Your task to perform on an android device: choose inbox layout in the gmail app Image 0: 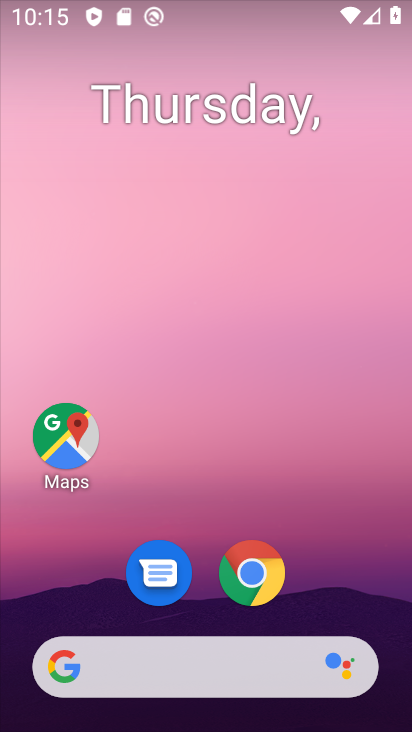
Step 0: drag from (285, 540) to (106, 37)
Your task to perform on an android device: choose inbox layout in the gmail app Image 1: 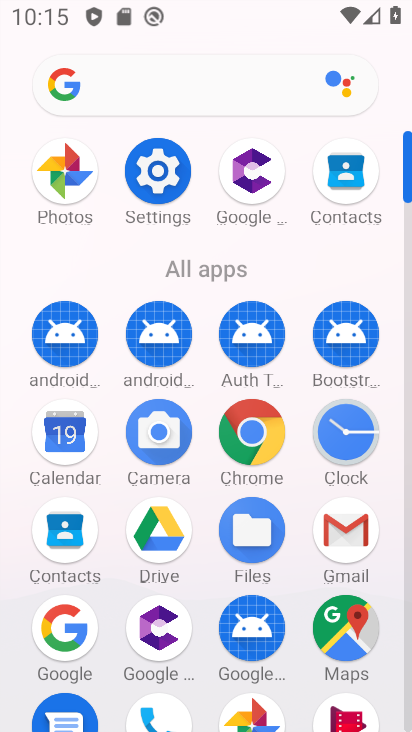
Step 1: click (358, 514)
Your task to perform on an android device: choose inbox layout in the gmail app Image 2: 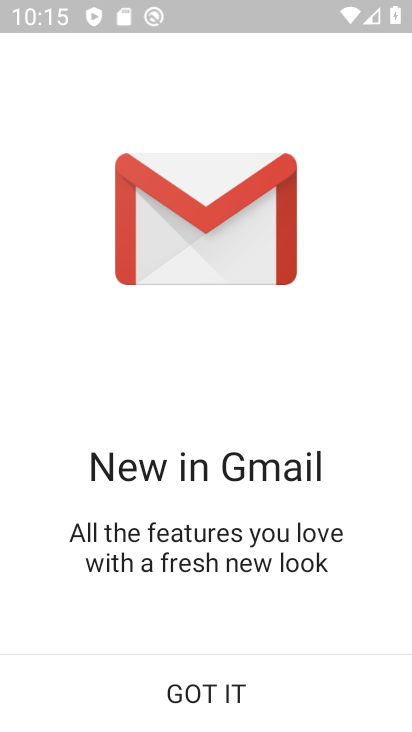
Step 2: click (242, 701)
Your task to perform on an android device: choose inbox layout in the gmail app Image 3: 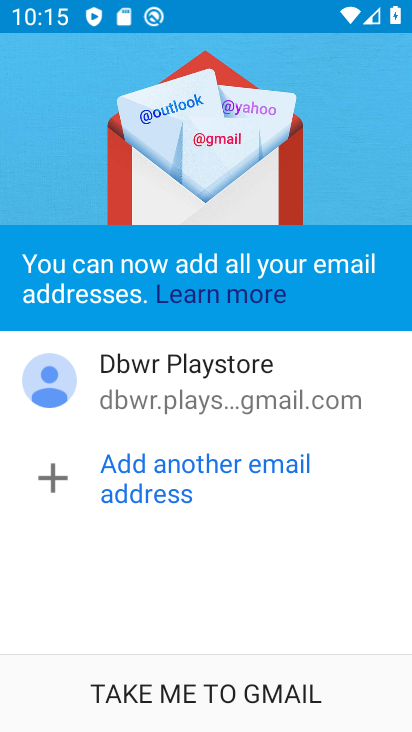
Step 3: click (242, 699)
Your task to perform on an android device: choose inbox layout in the gmail app Image 4: 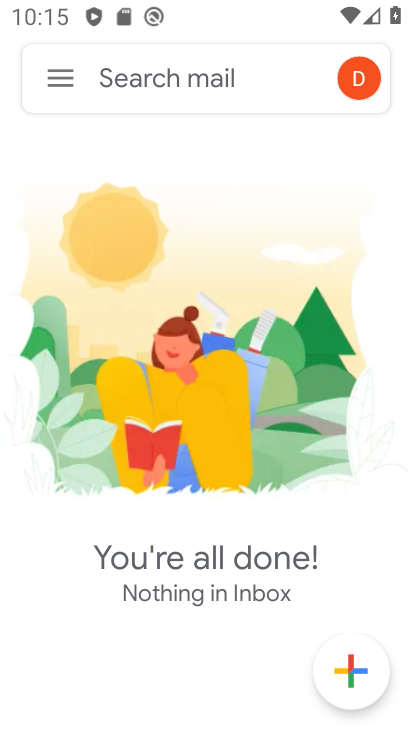
Step 4: click (61, 69)
Your task to perform on an android device: choose inbox layout in the gmail app Image 5: 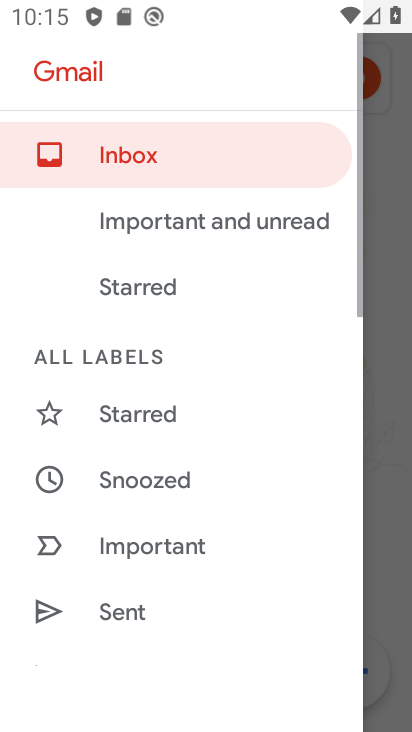
Step 5: drag from (189, 563) to (127, 139)
Your task to perform on an android device: choose inbox layout in the gmail app Image 6: 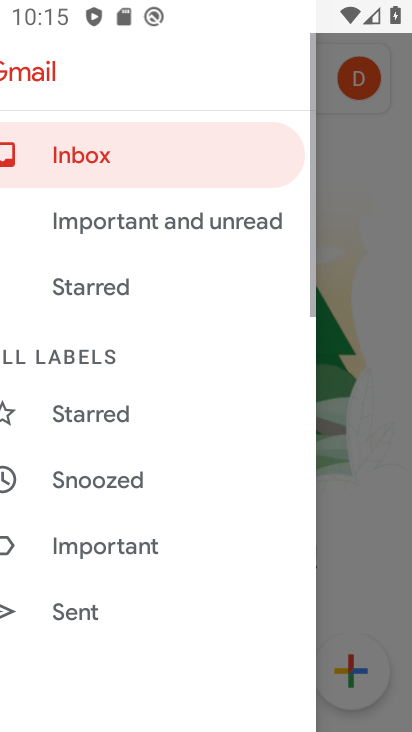
Step 6: drag from (126, 148) to (261, 323)
Your task to perform on an android device: choose inbox layout in the gmail app Image 7: 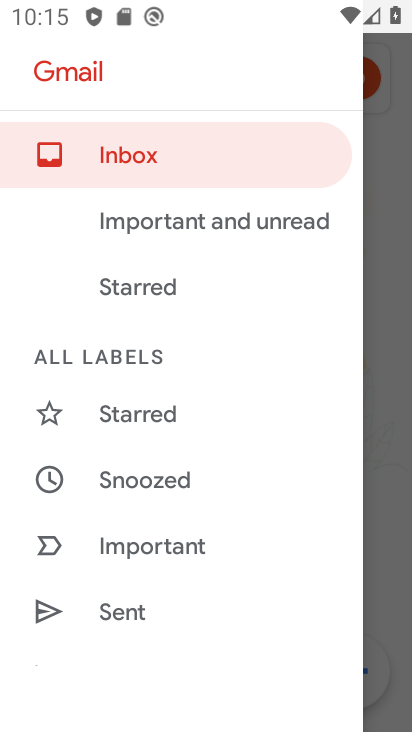
Step 7: drag from (84, 600) to (105, 246)
Your task to perform on an android device: choose inbox layout in the gmail app Image 8: 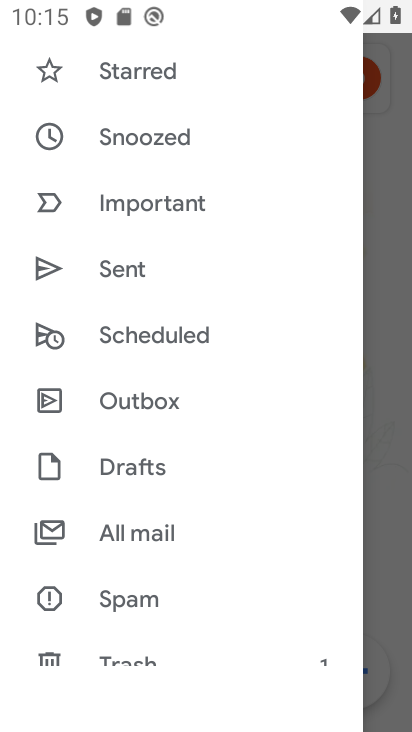
Step 8: drag from (82, 599) to (141, 130)
Your task to perform on an android device: choose inbox layout in the gmail app Image 9: 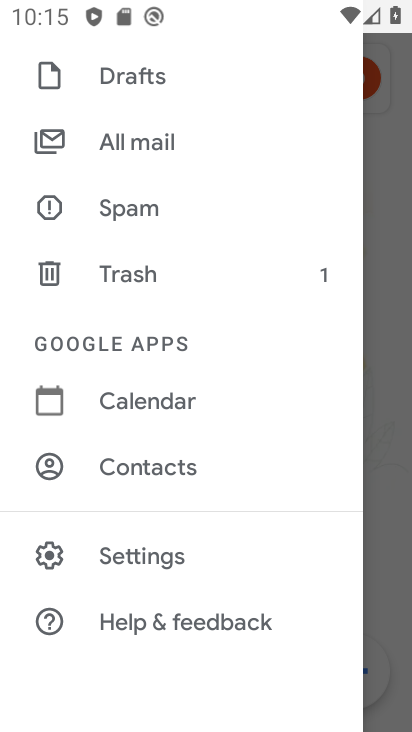
Step 9: click (124, 555)
Your task to perform on an android device: choose inbox layout in the gmail app Image 10: 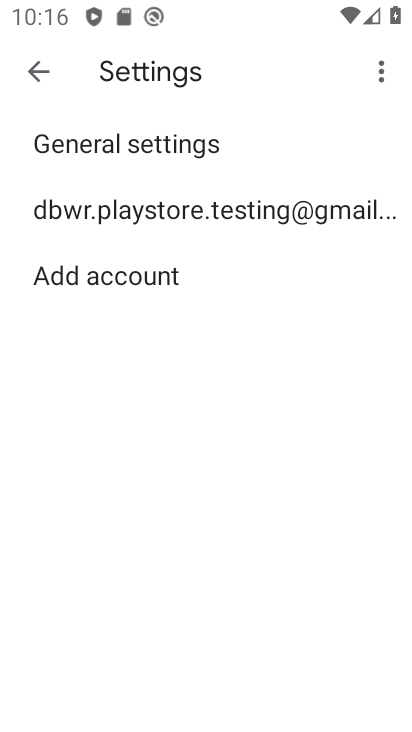
Step 10: click (210, 208)
Your task to perform on an android device: choose inbox layout in the gmail app Image 11: 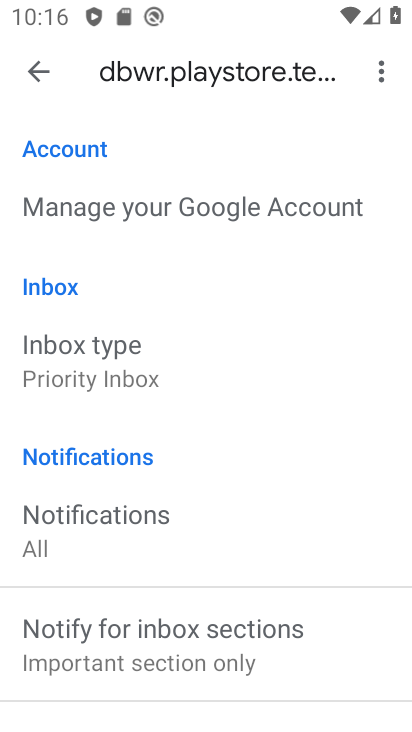
Step 11: click (67, 377)
Your task to perform on an android device: choose inbox layout in the gmail app Image 12: 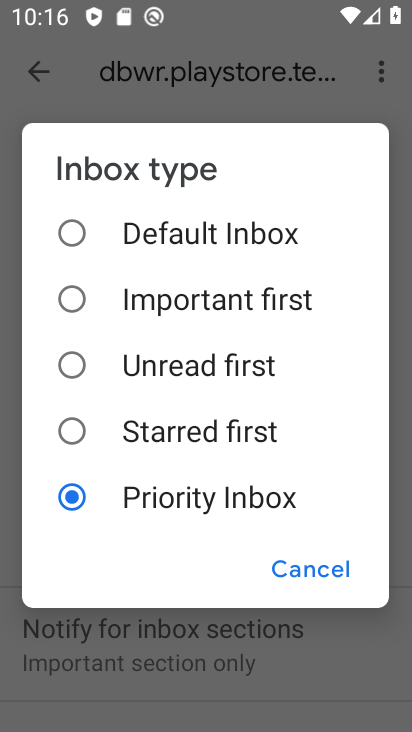
Step 12: task complete